Your task to perform on an android device: Open Yahoo.com Image 0: 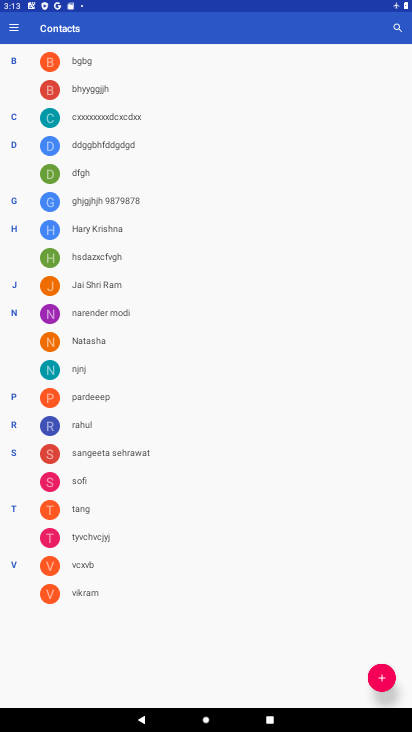
Step 0: press home button
Your task to perform on an android device: Open Yahoo.com Image 1: 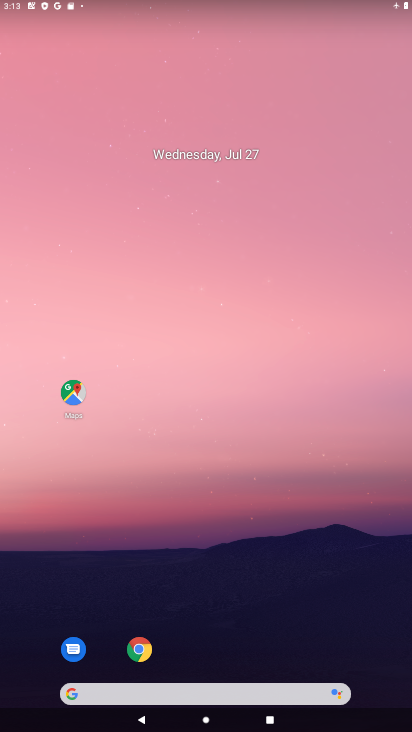
Step 1: click (255, 697)
Your task to perform on an android device: Open Yahoo.com Image 2: 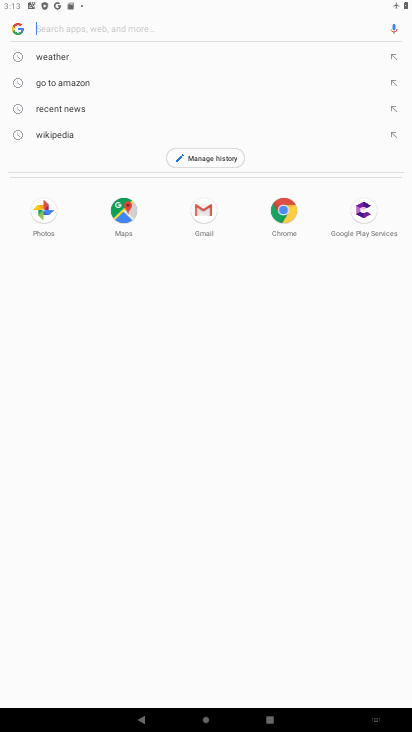
Step 2: type "Yahoo.com"
Your task to perform on an android device: Open Yahoo.com Image 3: 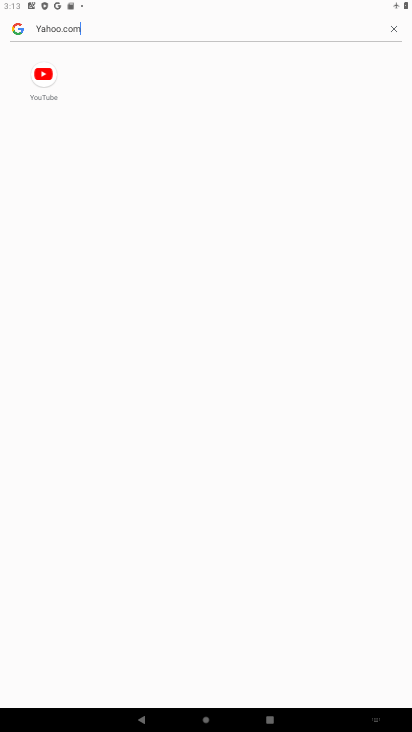
Step 3: press enter
Your task to perform on an android device: Open Yahoo.com Image 4: 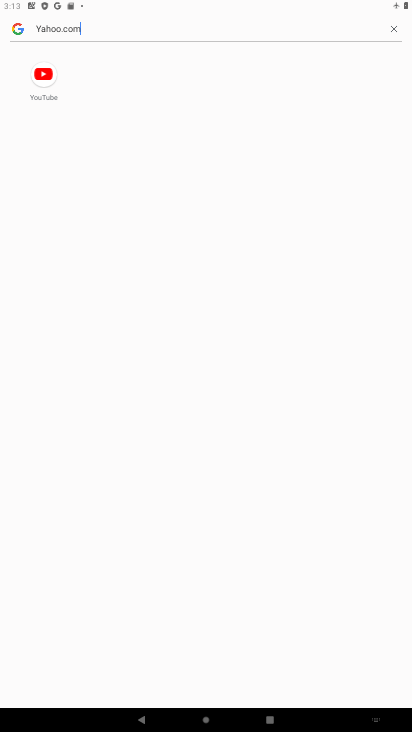
Step 4: type ""
Your task to perform on an android device: Open Yahoo.com Image 5: 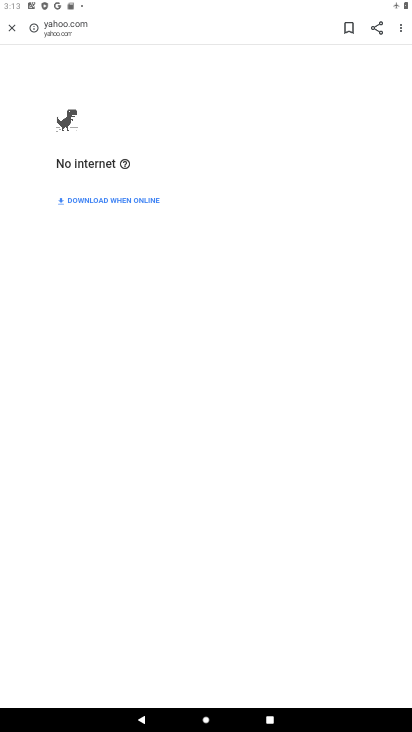
Step 5: task complete